Your task to perform on an android device: allow cookies in the chrome app Image 0: 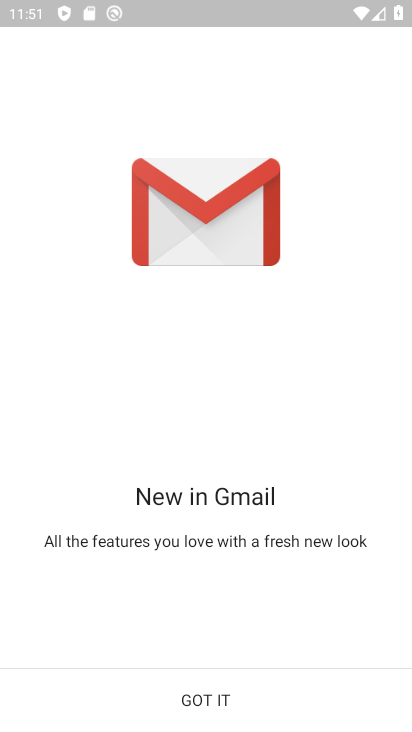
Step 0: click (284, 714)
Your task to perform on an android device: allow cookies in the chrome app Image 1: 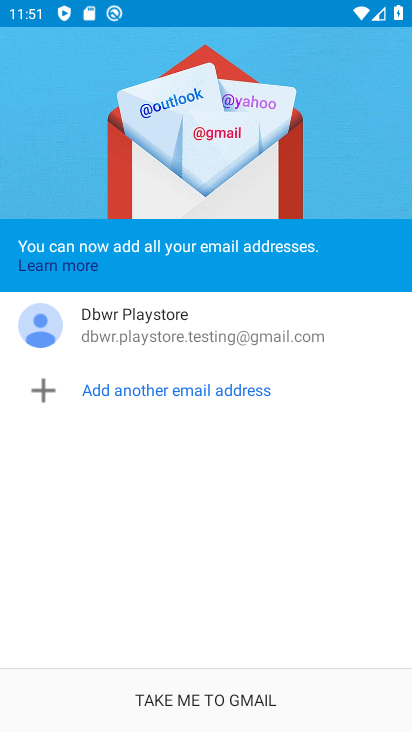
Step 1: click (288, 704)
Your task to perform on an android device: allow cookies in the chrome app Image 2: 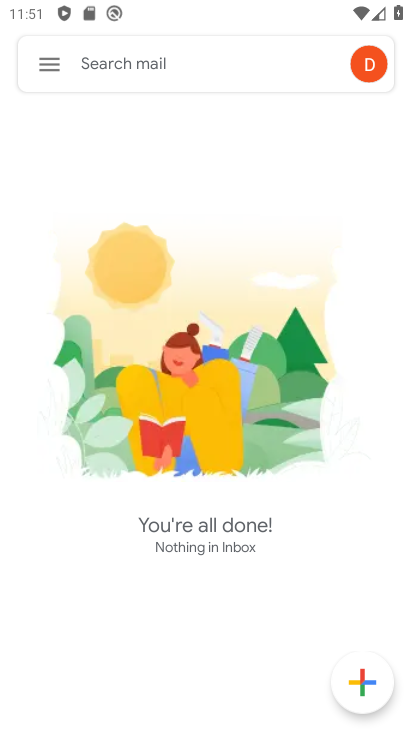
Step 2: press home button
Your task to perform on an android device: allow cookies in the chrome app Image 3: 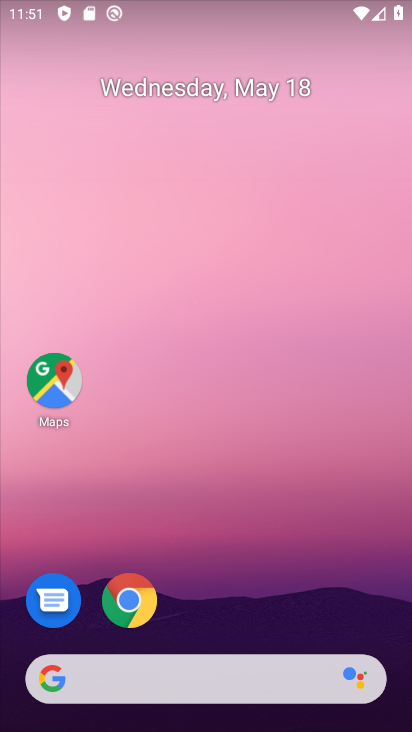
Step 3: click (135, 601)
Your task to perform on an android device: allow cookies in the chrome app Image 4: 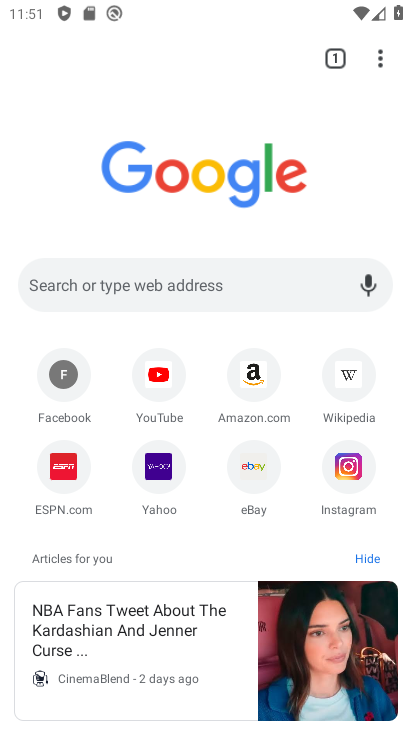
Step 4: click (371, 58)
Your task to perform on an android device: allow cookies in the chrome app Image 5: 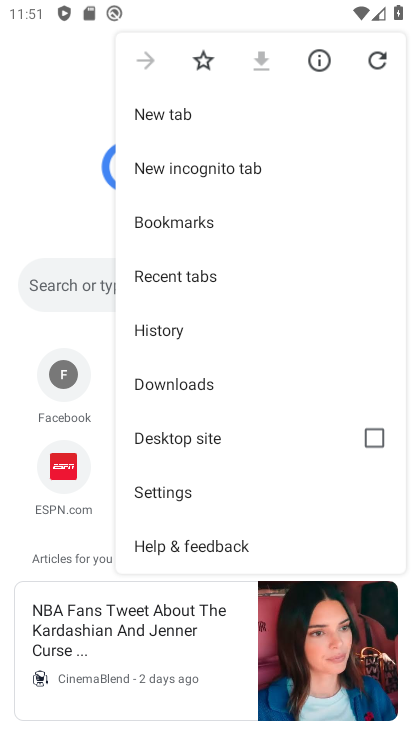
Step 5: click (210, 498)
Your task to perform on an android device: allow cookies in the chrome app Image 6: 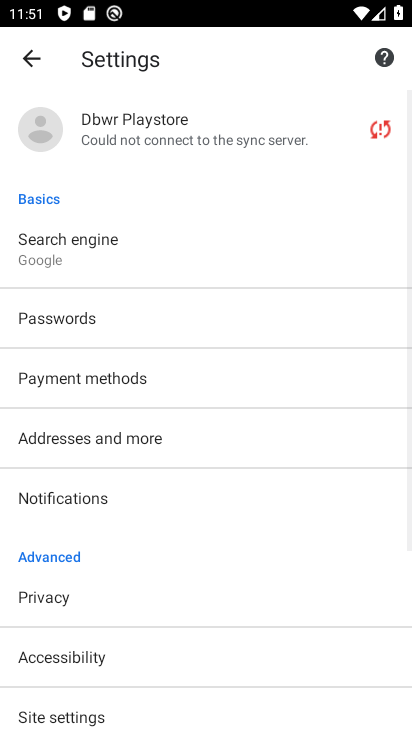
Step 6: drag from (260, 654) to (194, 204)
Your task to perform on an android device: allow cookies in the chrome app Image 7: 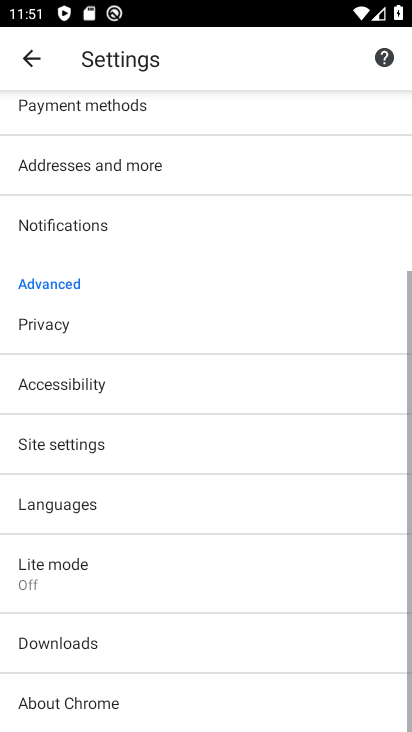
Step 7: click (127, 448)
Your task to perform on an android device: allow cookies in the chrome app Image 8: 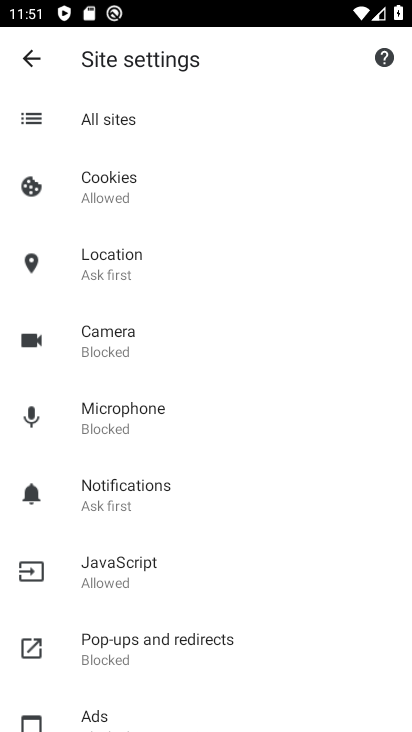
Step 8: click (153, 165)
Your task to perform on an android device: allow cookies in the chrome app Image 9: 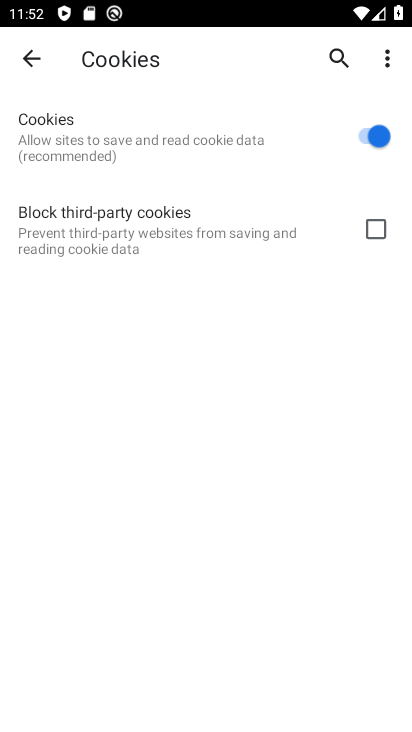
Step 9: task complete